Your task to perform on an android device: set the stopwatch Image 0: 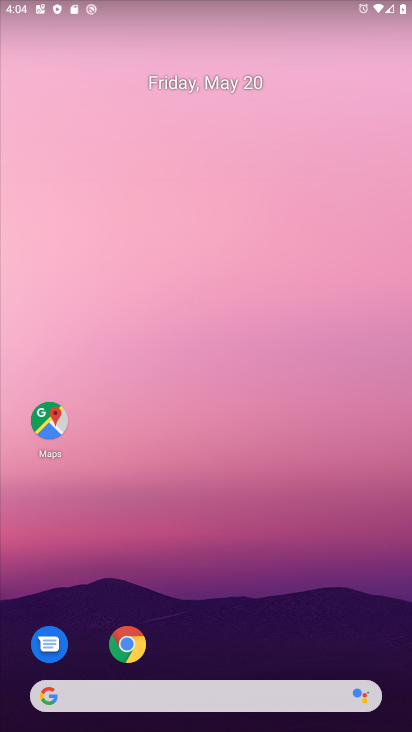
Step 0: drag from (342, 632) to (262, 219)
Your task to perform on an android device: set the stopwatch Image 1: 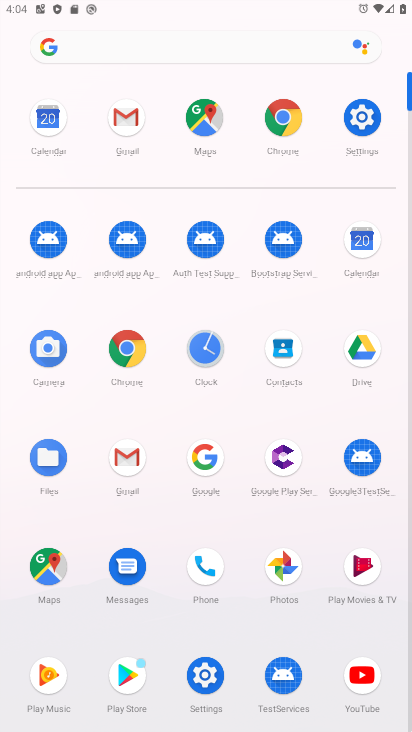
Step 1: click (181, 378)
Your task to perform on an android device: set the stopwatch Image 2: 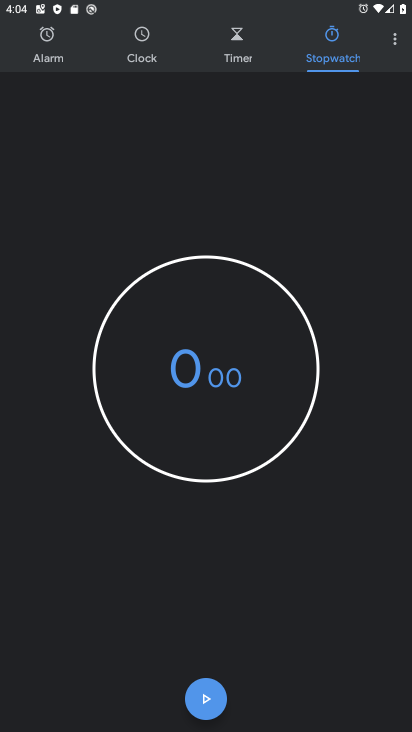
Step 2: task complete